Your task to perform on an android device: change the clock display to analog Image 0: 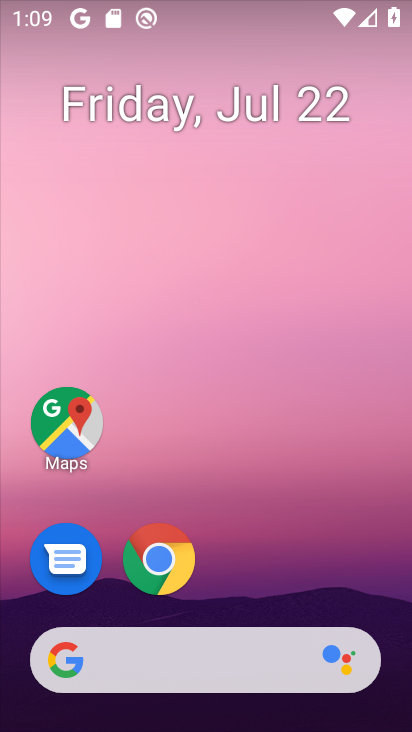
Step 0: drag from (233, 607) to (287, 0)
Your task to perform on an android device: change the clock display to analog Image 1: 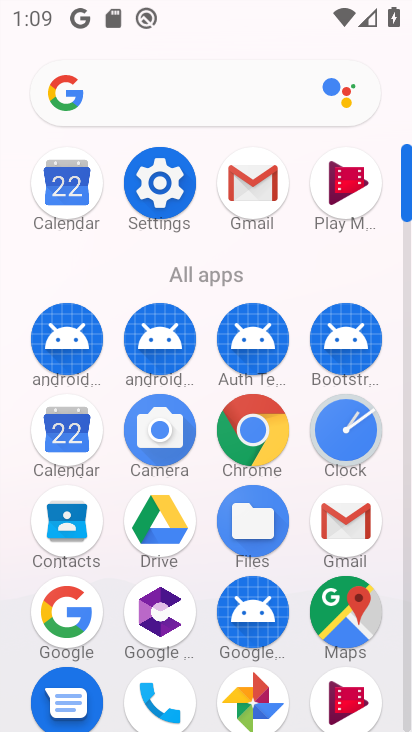
Step 1: click (333, 426)
Your task to perform on an android device: change the clock display to analog Image 2: 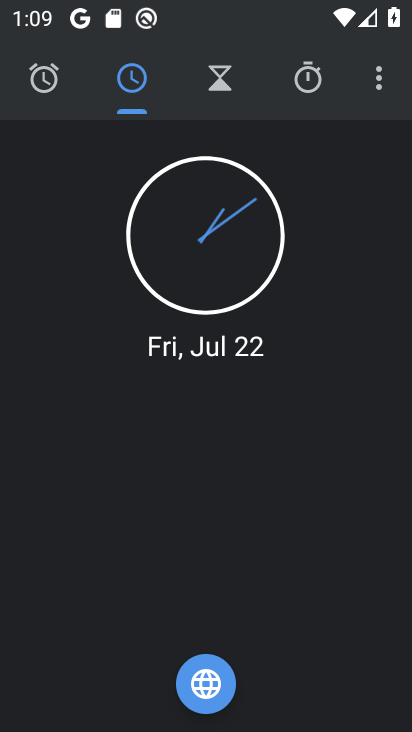
Step 2: click (377, 79)
Your task to perform on an android device: change the clock display to analog Image 3: 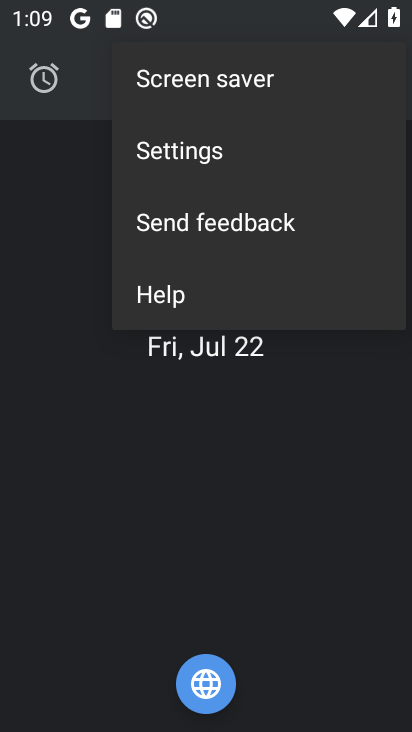
Step 3: click (268, 150)
Your task to perform on an android device: change the clock display to analog Image 4: 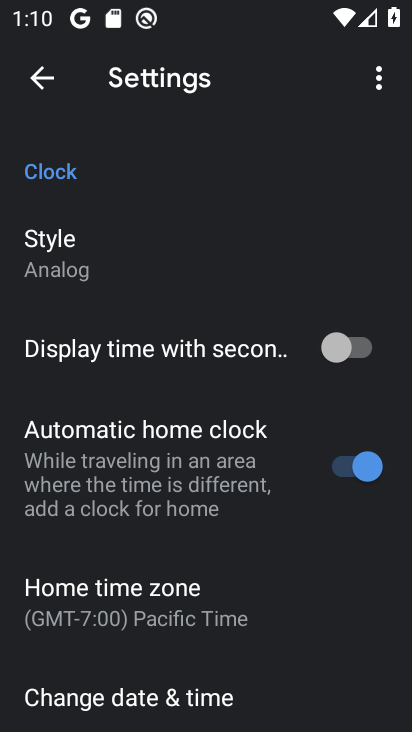
Step 4: task complete